Your task to perform on an android device: toggle wifi Image 0: 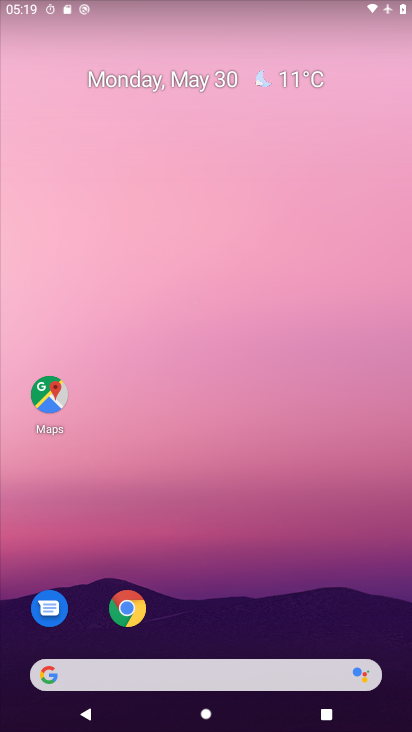
Step 0: drag from (299, 590) to (140, 14)
Your task to perform on an android device: toggle wifi Image 1: 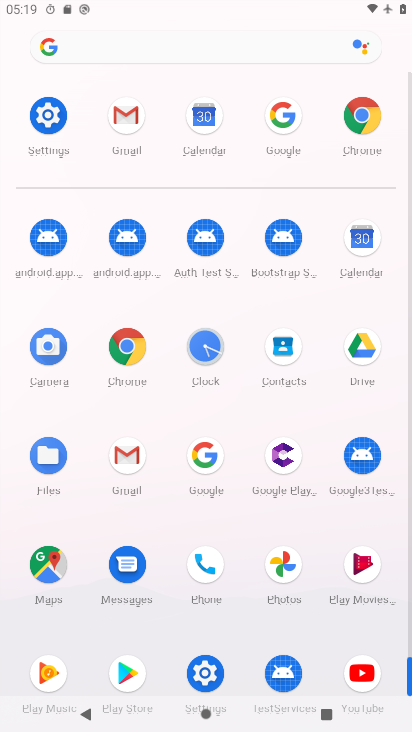
Step 1: click (58, 125)
Your task to perform on an android device: toggle wifi Image 2: 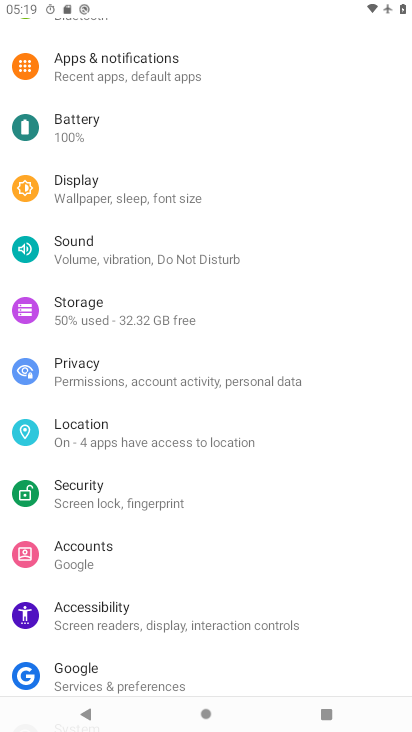
Step 2: drag from (259, 140) to (259, 666)
Your task to perform on an android device: toggle wifi Image 3: 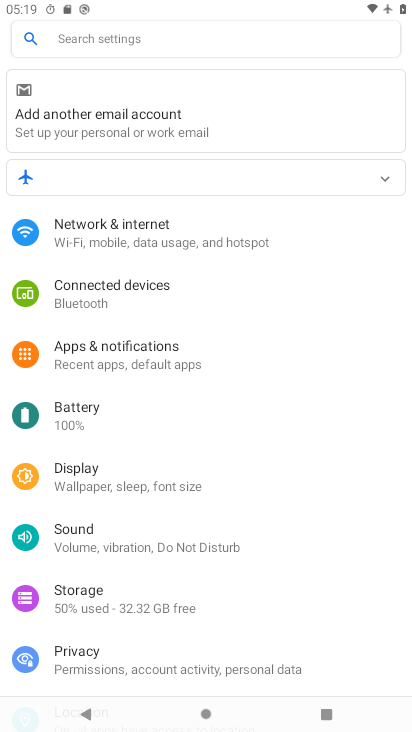
Step 3: click (201, 225)
Your task to perform on an android device: toggle wifi Image 4: 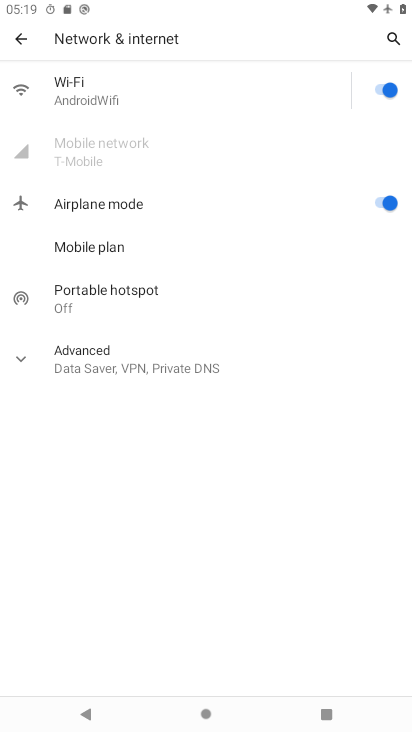
Step 4: click (383, 88)
Your task to perform on an android device: toggle wifi Image 5: 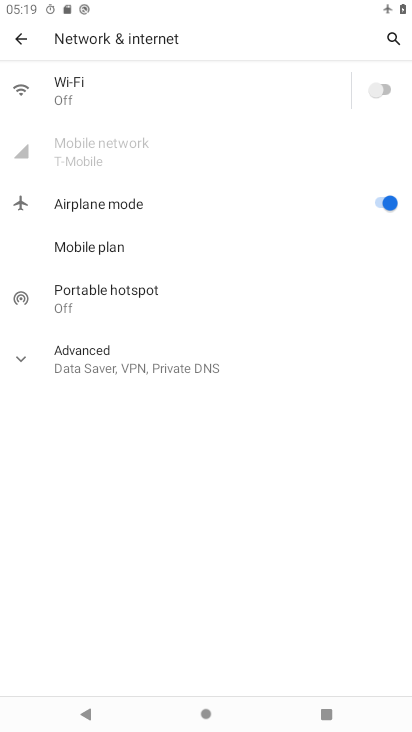
Step 5: task complete